Your task to perform on an android device: visit the assistant section in the google photos Image 0: 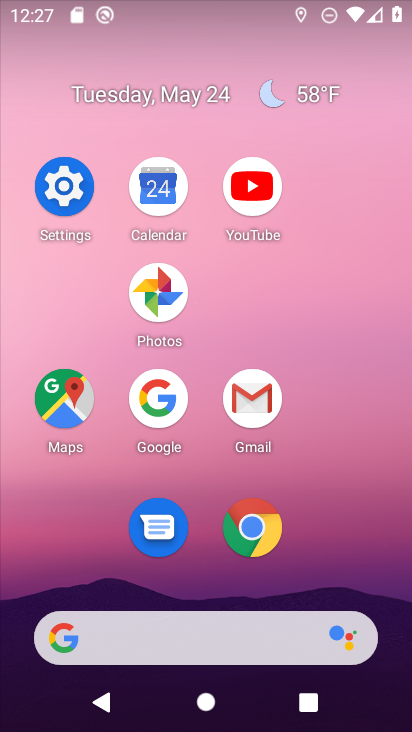
Step 0: click (155, 290)
Your task to perform on an android device: visit the assistant section in the google photos Image 1: 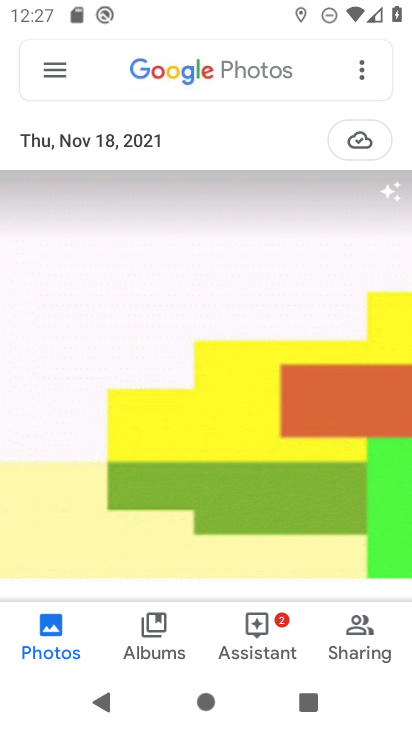
Step 1: click (276, 626)
Your task to perform on an android device: visit the assistant section in the google photos Image 2: 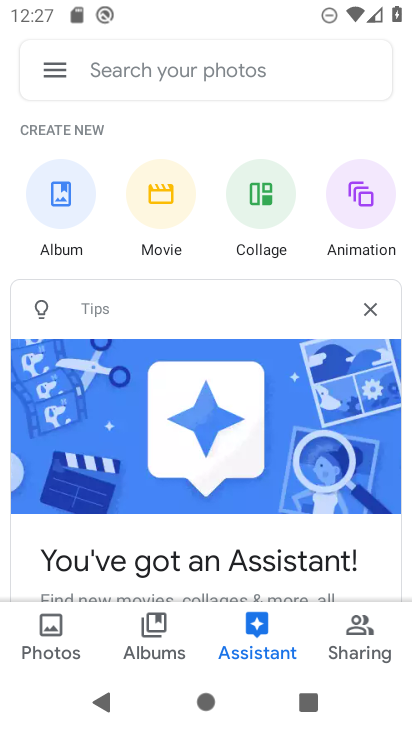
Step 2: task complete